Your task to perform on an android device: turn on wifi Image 0: 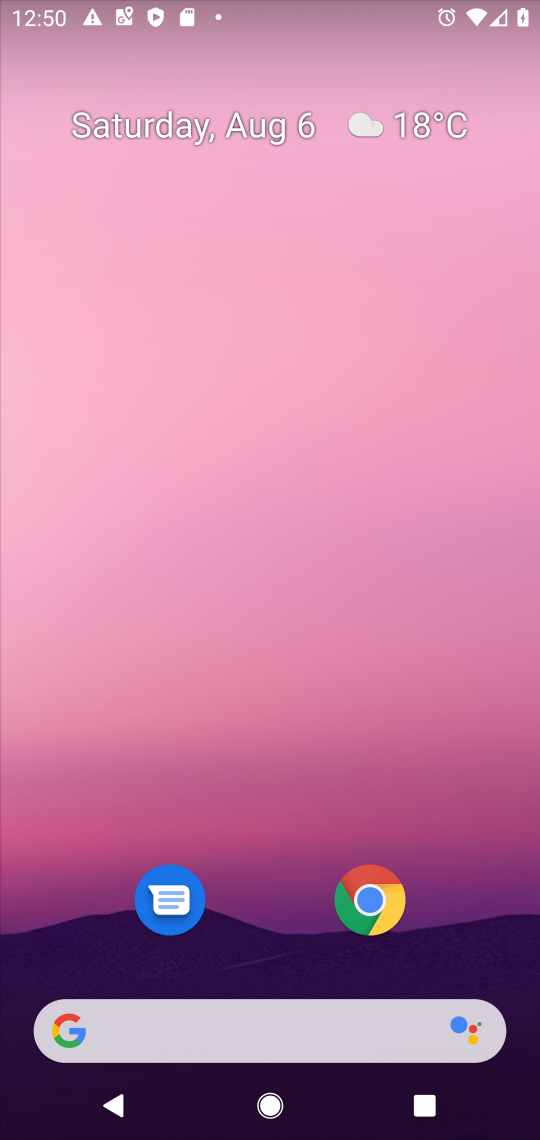
Step 0: drag from (340, 11) to (327, 684)
Your task to perform on an android device: turn on wifi Image 1: 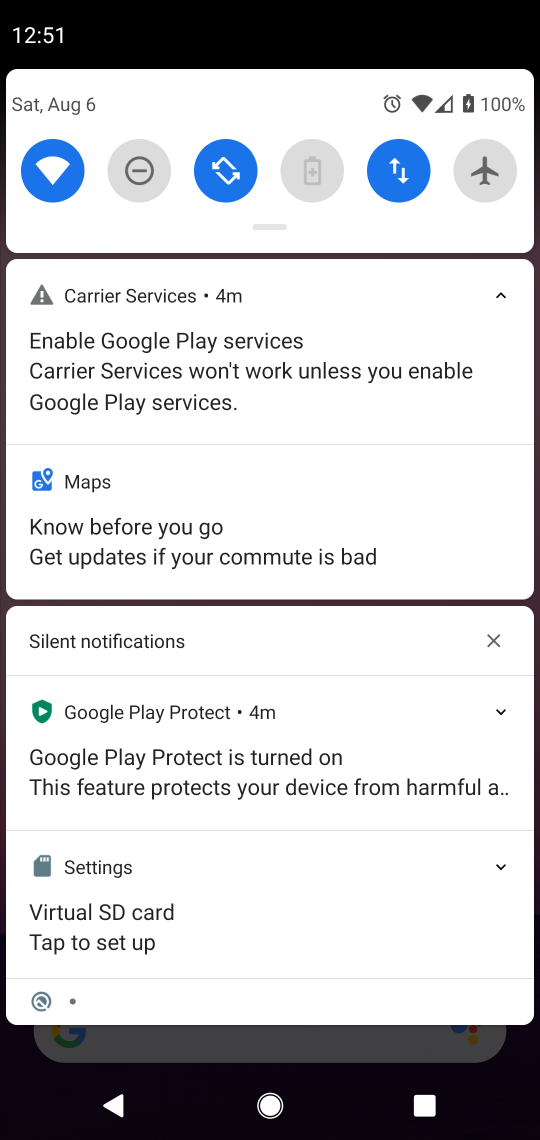
Step 1: click (61, 176)
Your task to perform on an android device: turn on wifi Image 2: 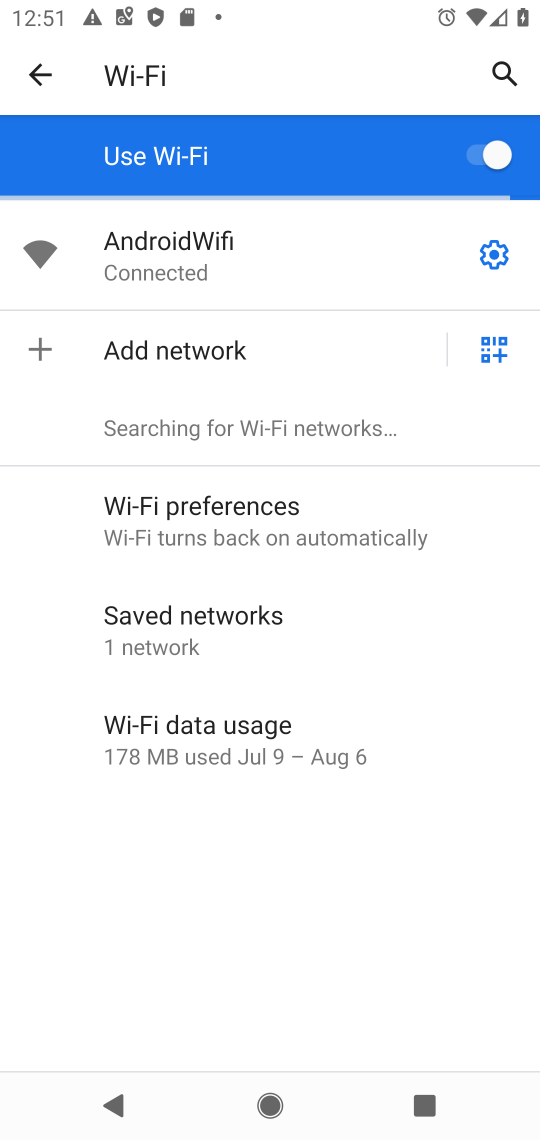
Step 2: task complete